Your task to perform on an android device: delete browsing data in the chrome app Image 0: 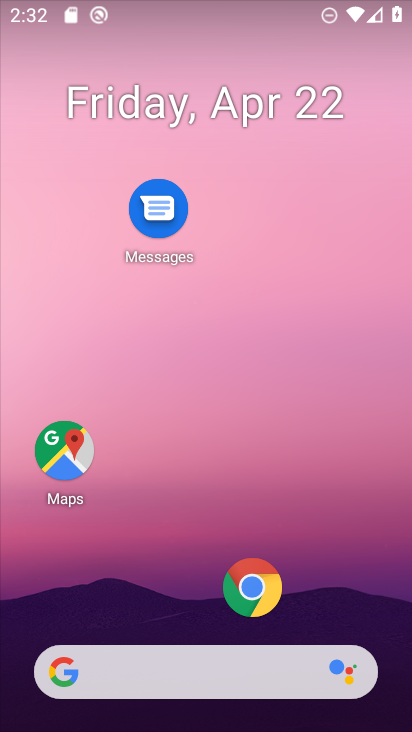
Step 0: click (231, 598)
Your task to perform on an android device: delete browsing data in the chrome app Image 1: 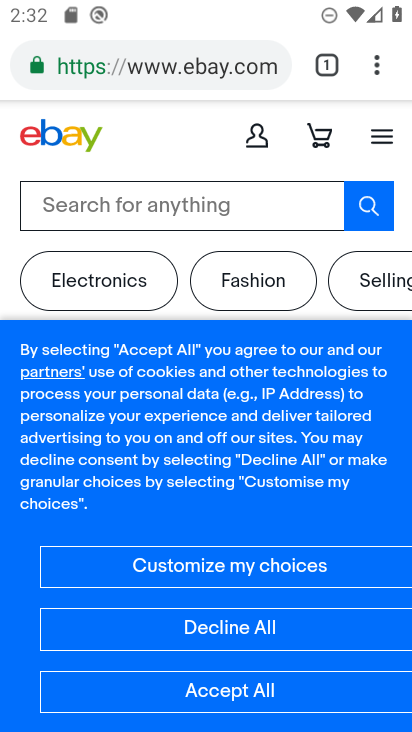
Step 1: drag from (381, 71) to (178, 360)
Your task to perform on an android device: delete browsing data in the chrome app Image 2: 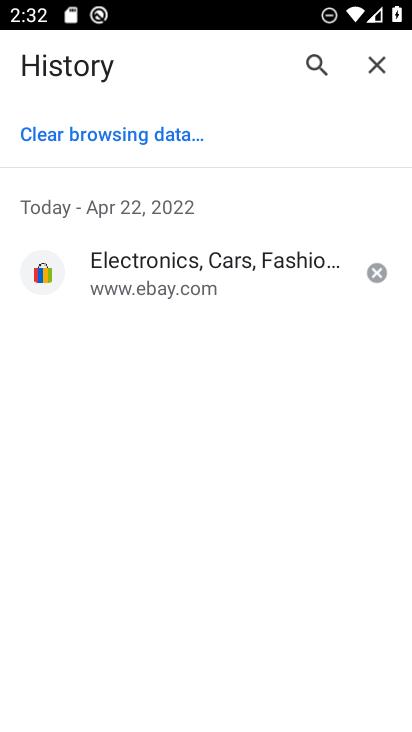
Step 2: click (150, 140)
Your task to perform on an android device: delete browsing data in the chrome app Image 3: 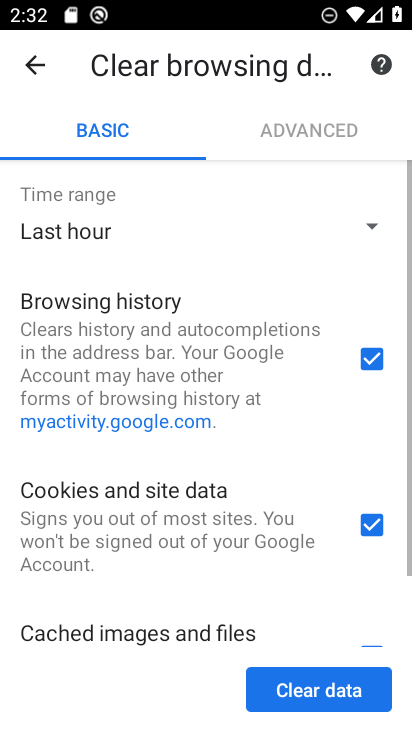
Step 3: click (317, 689)
Your task to perform on an android device: delete browsing data in the chrome app Image 4: 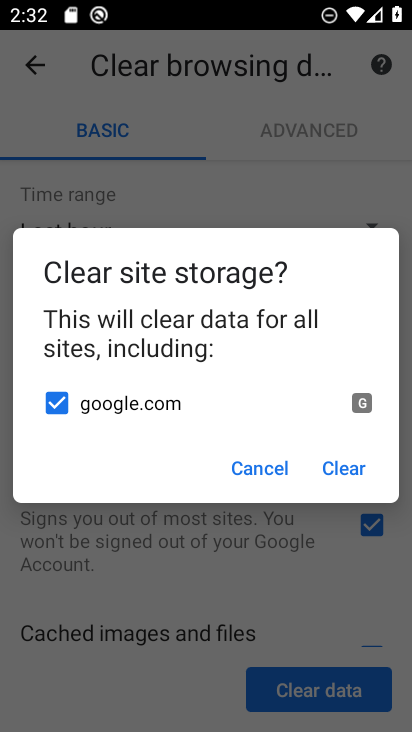
Step 4: click (339, 461)
Your task to perform on an android device: delete browsing data in the chrome app Image 5: 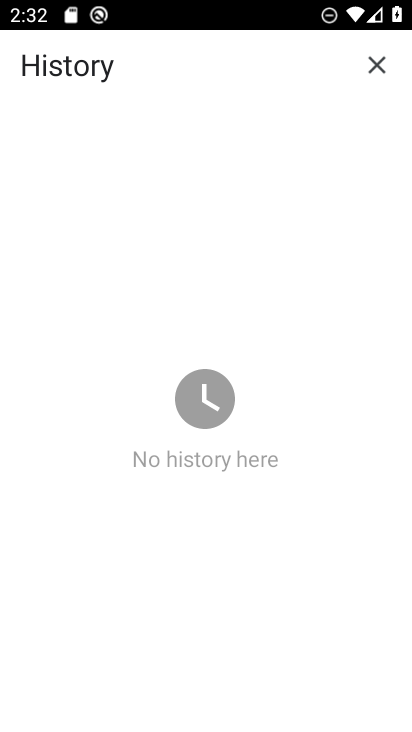
Step 5: task complete